Your task to perform on an android device: create a new album in the google photos Image 0: 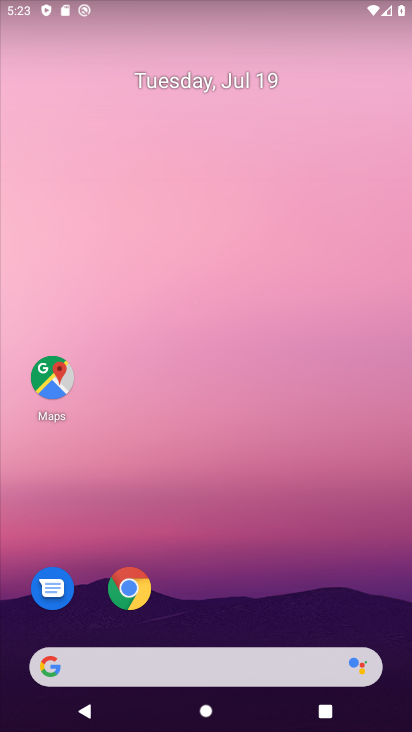
Step 0: click (182, 599)
Your task to perform on an android device: create a new album in the google photos Image 1: 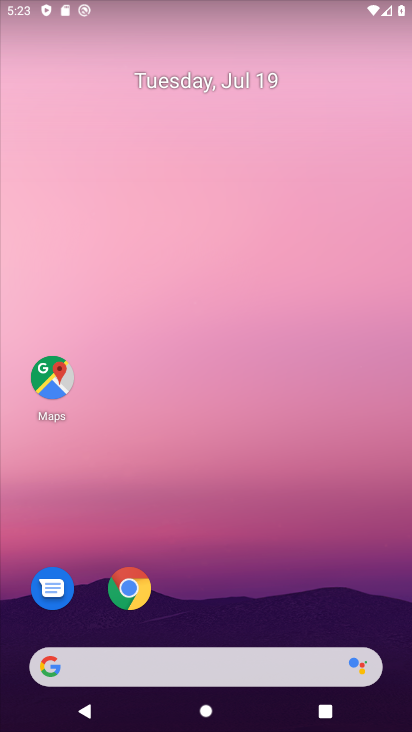
Step 1: drag from (182, 616) to (157, 305)
Your task to perform on an android device: create a new album in the google photos Image 2: 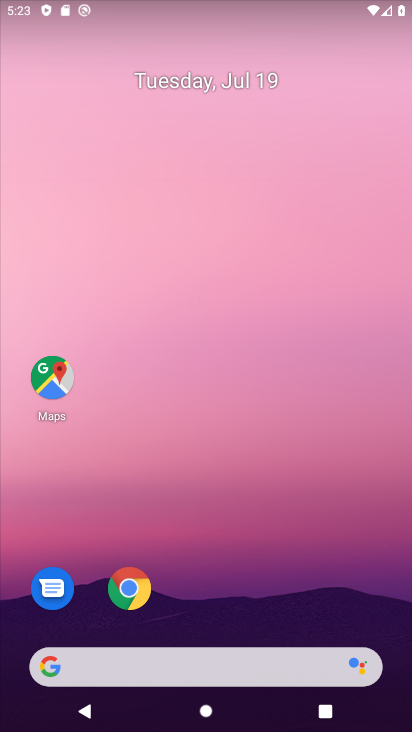
Step 2: click (169, 418)
Your task to perform on an android device: create a new album in the google photos Image 3: 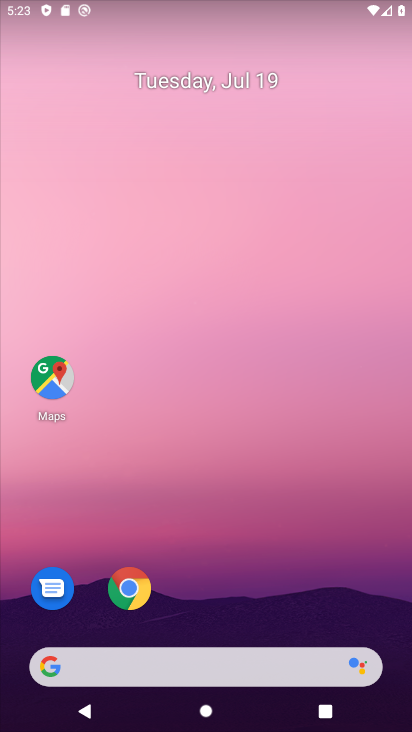
Step 3: drag from (182, 567) to (155, 122)
Your task to perform on an android device: create a new album in the google photos Image 4: 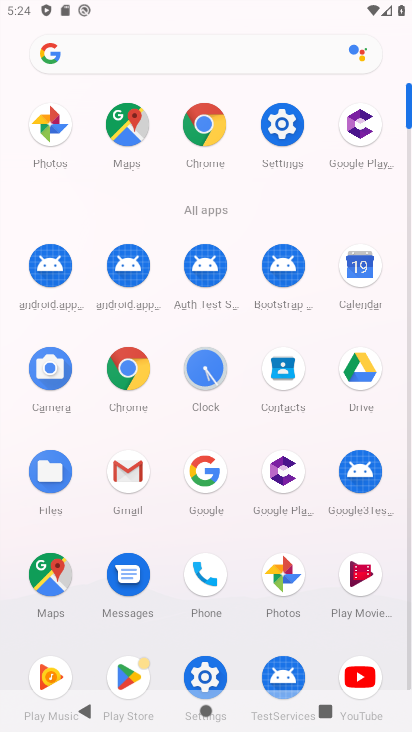
Step 4: click (27, 120)
Your task to perform on an android device: create a new album in the google photos Image 5: 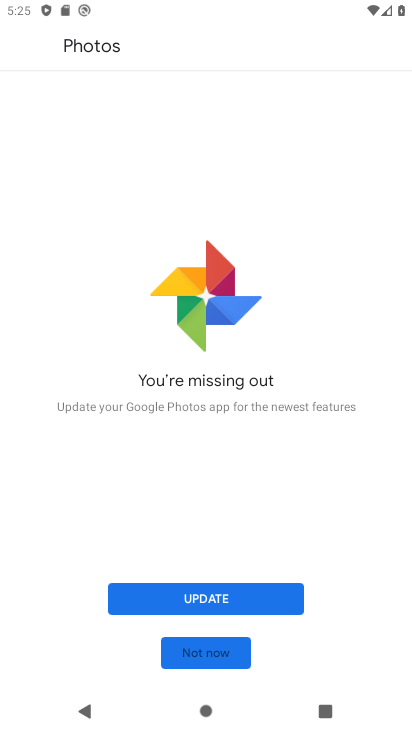
Step 5: click (212, 650)
Your task to perform on an android device: create a new album in the google photos Image 6: 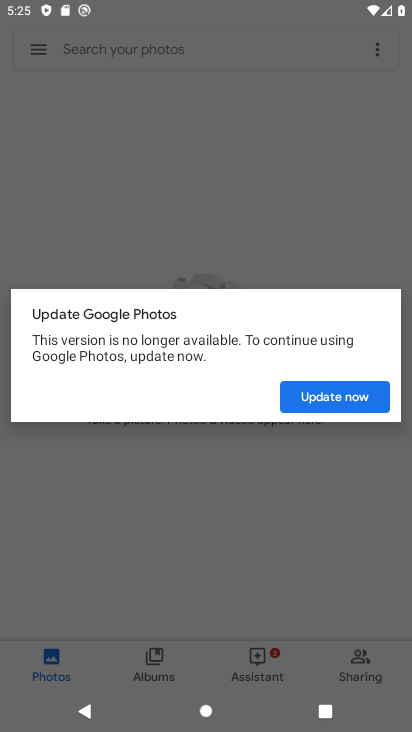
Step 6: click (316, 386)
Your task to perform on an android device: create a new album in the google photos Image 7: 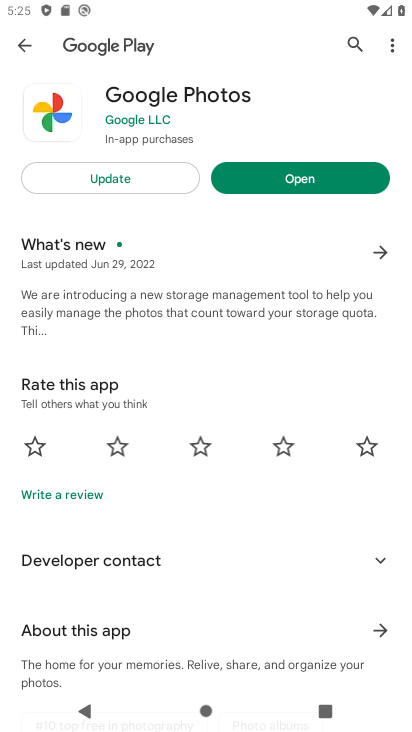
Step 7: click (278, 189)
Your task to perform on an android device: create a new album in the google photos Image 8: 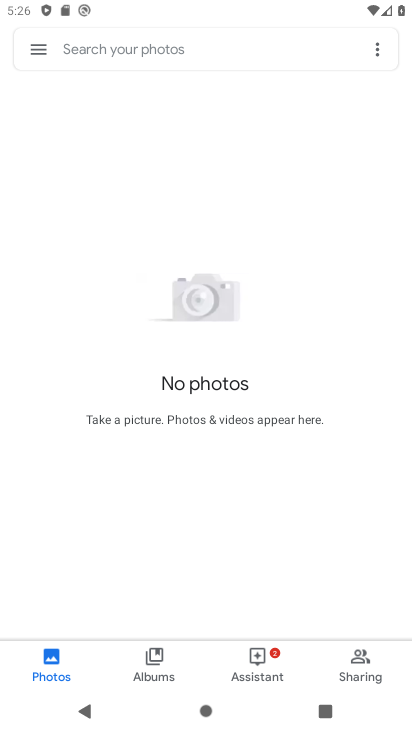
Step 8: task complete